Your task to perform on an android device: turn pop-ups off in chrome Image 0: 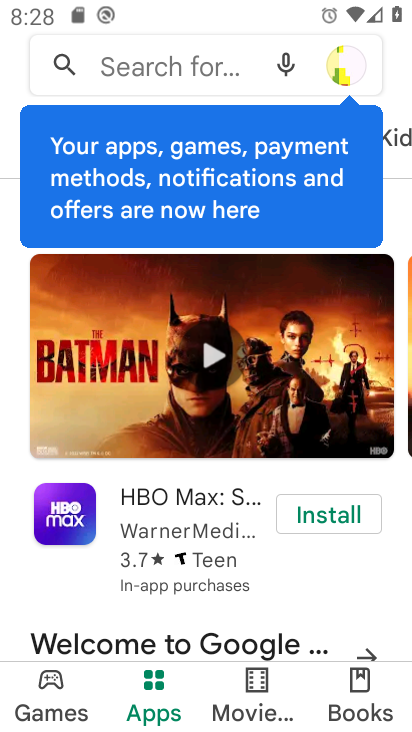
Step 0: press home button
Your task to perform on an android device: turn pop-ups off in chrome Image 1: 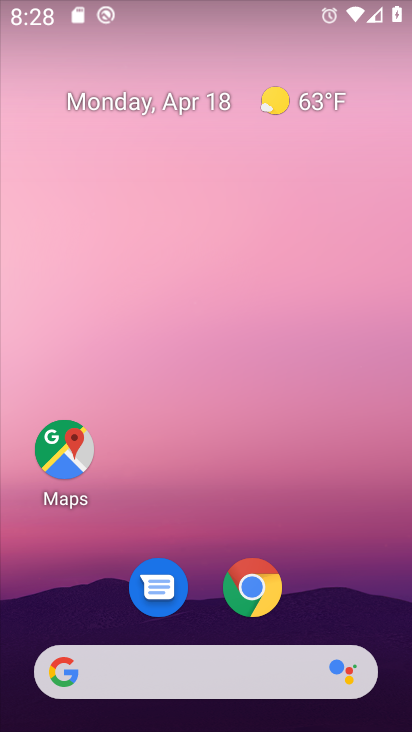
Step 1: drag from (369, 576) to (335, 177)
Your task to perform on an android device: turn pop-ups off in chrome Image 2: 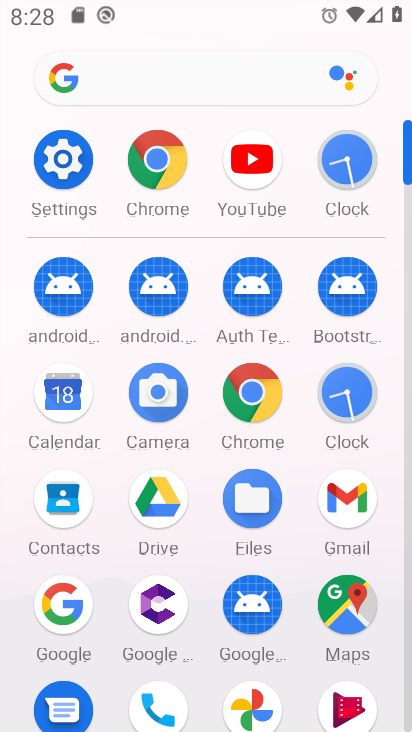
Step 2: click (82, 168)
Your task to perform on an android device: turn pop-ups off in chrome Image 3: 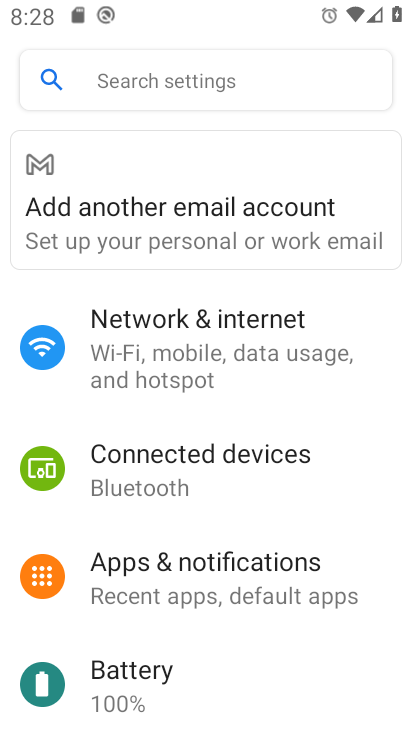
Step 3: drag from (170, 606) to (229, 335)
Your task to perform on an android device: turn pop-ups off in chrome Image 4: 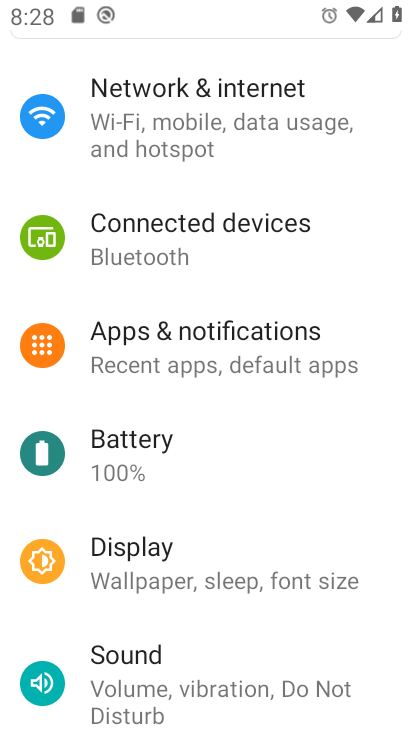
Step 4: drag from (150, 626) to (190, 380)
Your task to perform on an android device: turn pop-ups off in chrome Image 5: 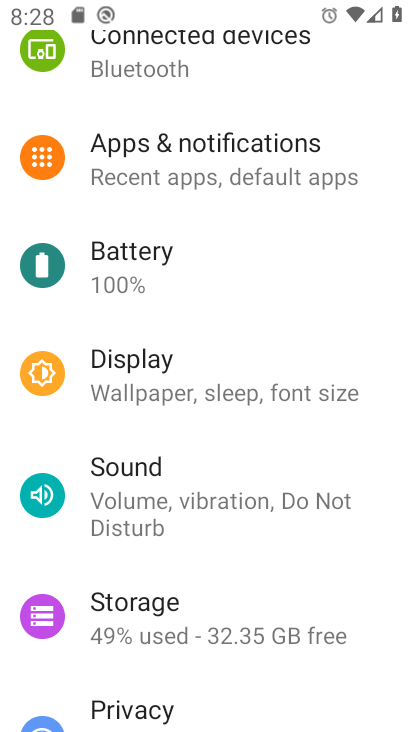
Step 5: press home button
Your task to perform on an android device: turn pop-ups off in chrome Image 6: 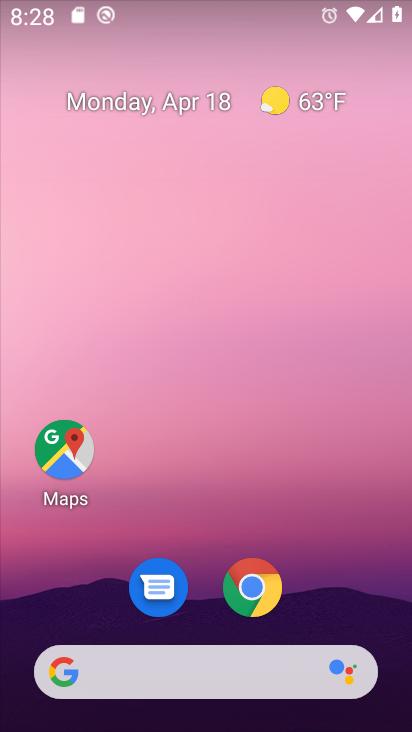
Step 6: drag from (83, 582) to (175, 130)
Your task to perform on an android device: turn pop-ups off in chrome Image 7: 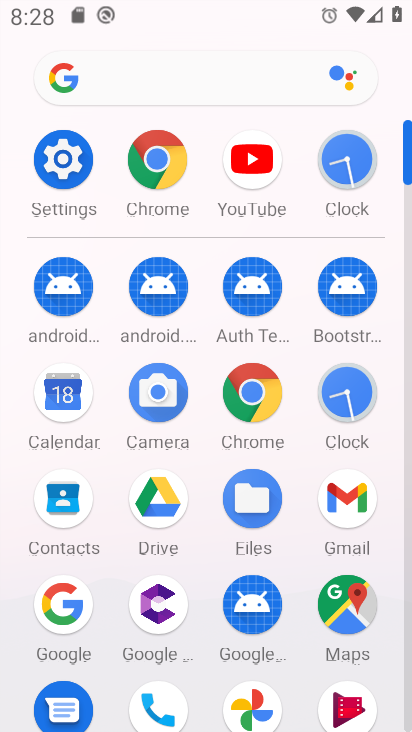
Step 7: click (183, 185)
Your task to perform on an android device: turn pop-ups off in chrome Image 8: 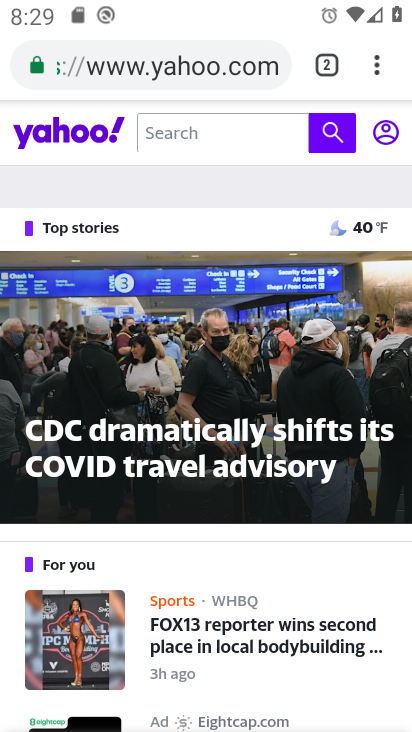
Step 8: click (375, 75)
Your task to perform on an android device: turn pop-ups off in chrome Image 9: 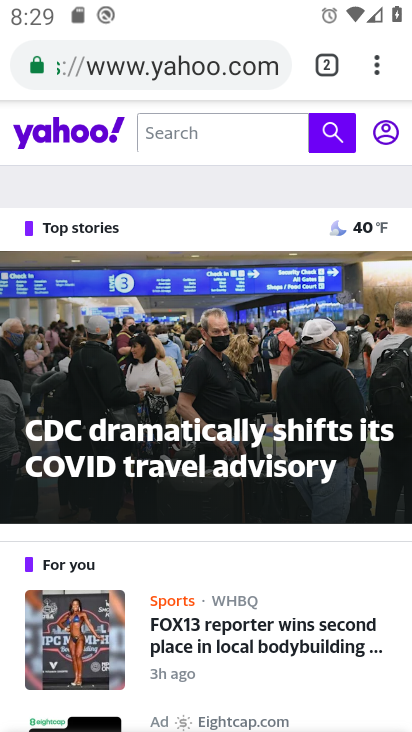
Step 9: click (372, 78)
Your task to perform on an android device: turn pop-ups off in chrome Image 10: 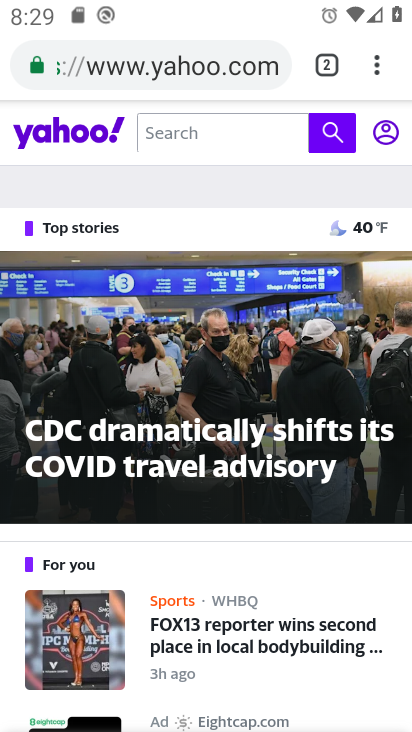
Step 10: click (369, 74)
Your task to perform on an android device: turn pop-ups off in chrome Image 11: 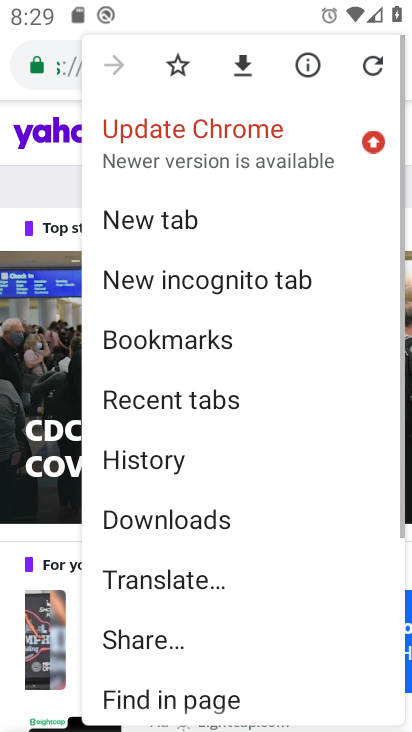
Step 11: drag from (204, 566) to (275, 277)
Your task to perform on an android device: turn pop-ups off in chrome Image 12: 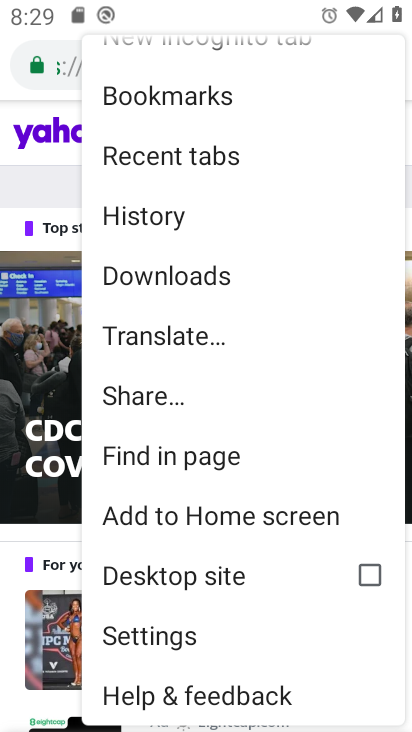
Step 12: click (186, 641)
Your task to perform on an android device: turn pop-ups off in chrome Image 13: 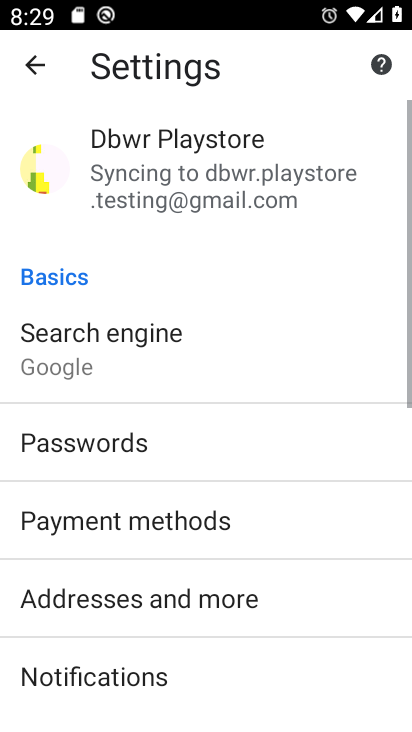
Step 13: drag from (186, 530) to (246, 187)
Your task to perform on an android device: turn pop-ups off in chrome Image 14: 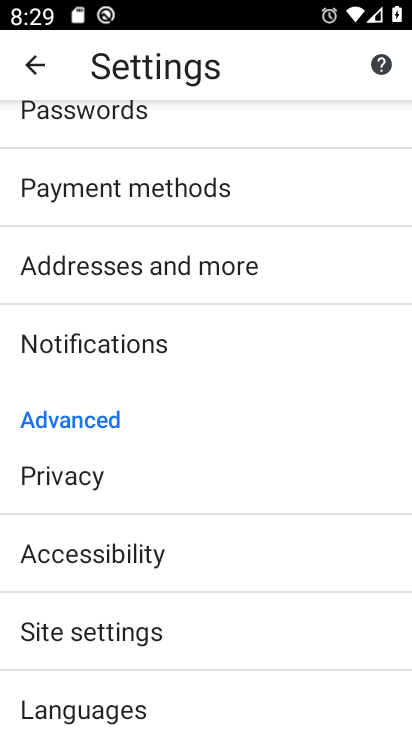
Step 14: drag from (153, 620) to (241, 343)
Your task to perform on an android device: turn pop-ups off in chrome Image 15: 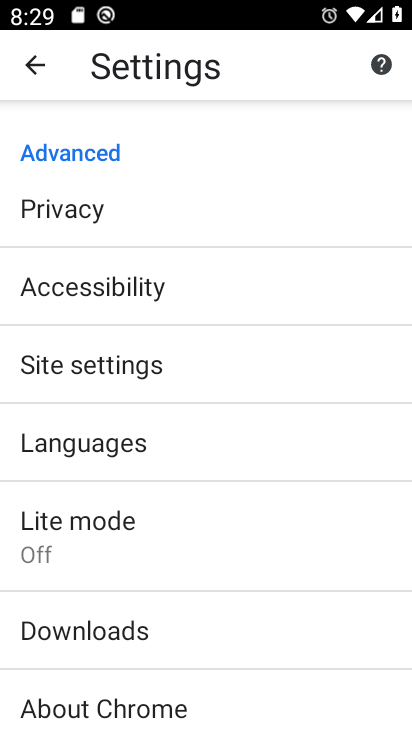
Step 15: click (170, 386)
Your task to perform on an android device: turn pop-ups off in chrome Image 16: 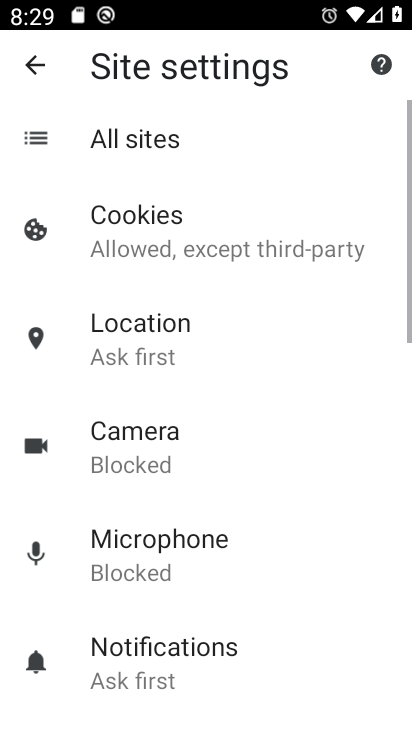
Step 16: drag from (125, 580) to (194, 199)
Your task to perform on an android device: turn pop-ups off in chrome Image 17: 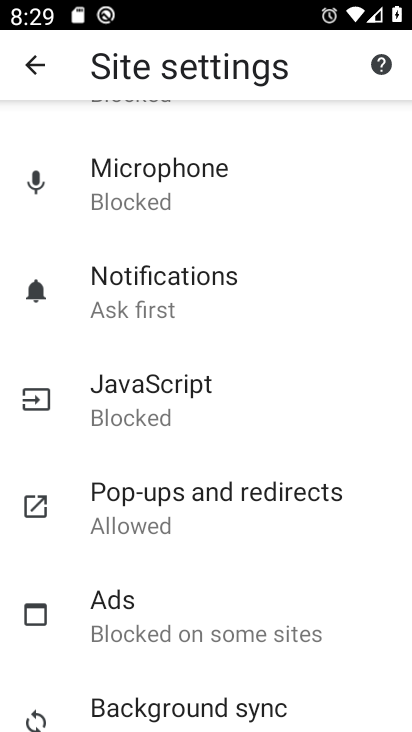
Step 17: click (177, 515)
Your task to perform on an android device: turn pop-ups off in chrome Image 18: 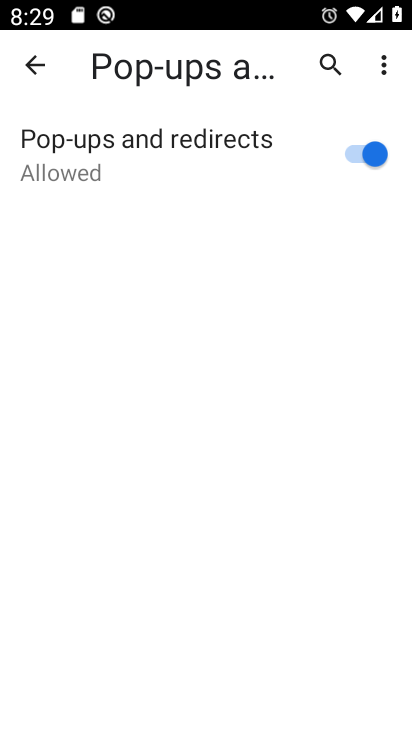
Step 18: click (389, 159)
Your task to perform on an android device: turn pop-ups off in chrome Image 19: 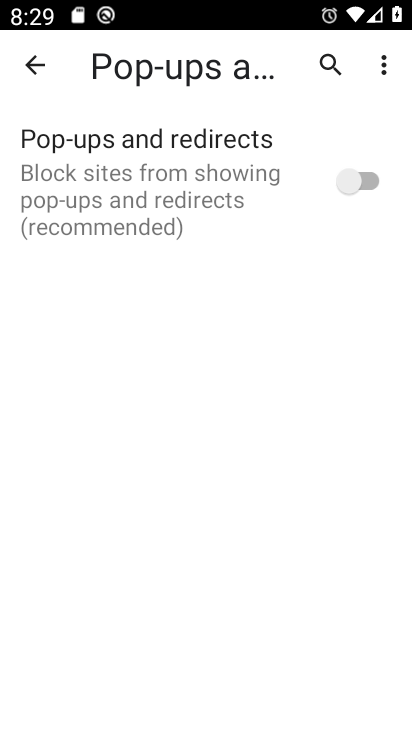
Step 19: task complete